Your task to perform on an android device: turn on showing notifications on the lock screen Image 0: 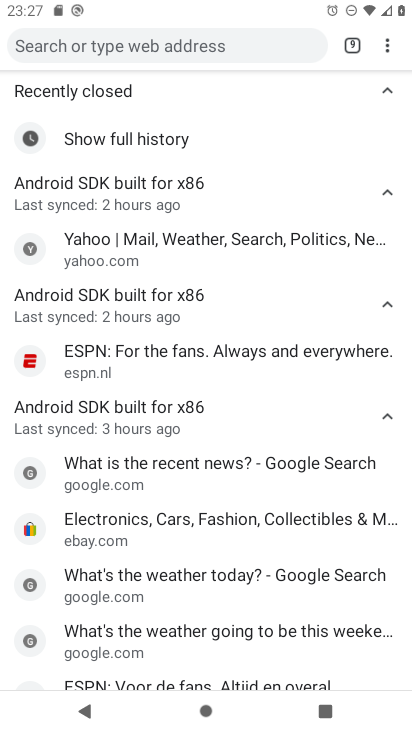
Step 0: press home button
Your task to perform on an android device: turn on showing notifications on the lock screen Image 1: 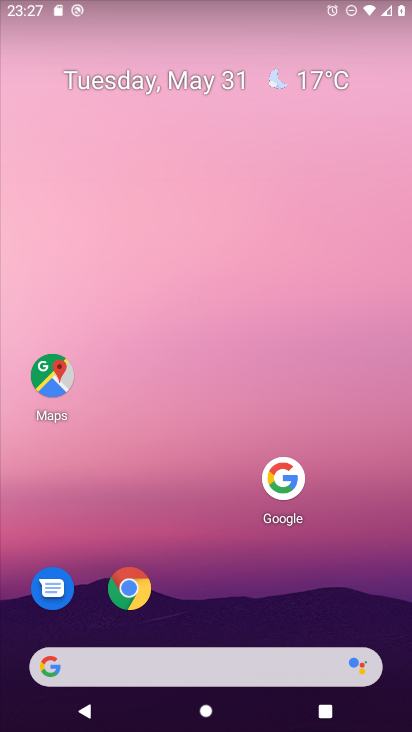
Step 1: drag from (157, 664) to (171, 118)
Your task to perform on an android device: turn on showing notifications on the lock screen Image 2: 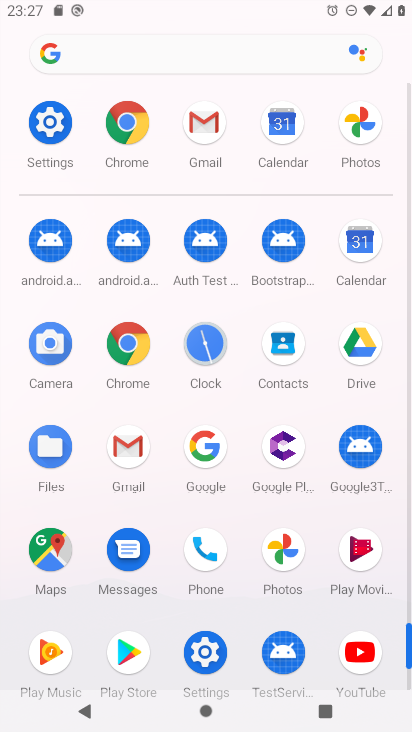
Step 2: click (46, 129)
Your task to perform on an android device: turn on showing notifications on the lock screen Image 3: 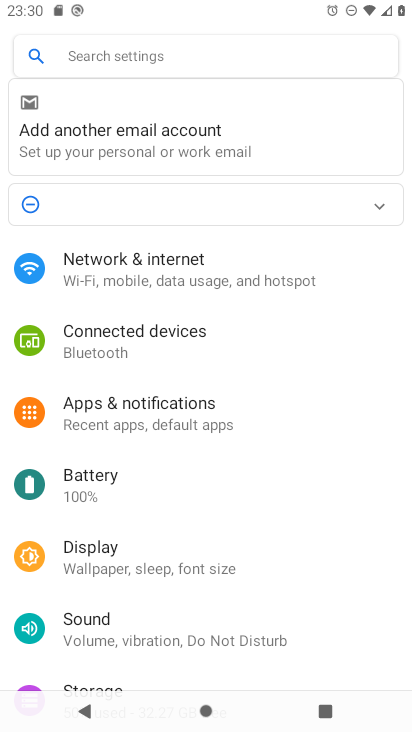
Step 3: click (156, 402)
Your task to perform on an android device: turn on showing notifications on the lock screen Image 4: 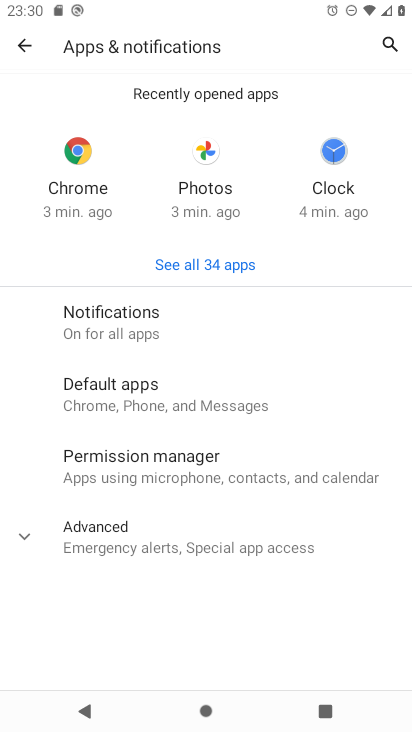
Step 4: click (141, 328)
Your task to perform on an android device: turn on showing notifications on the lock screen Image 5: 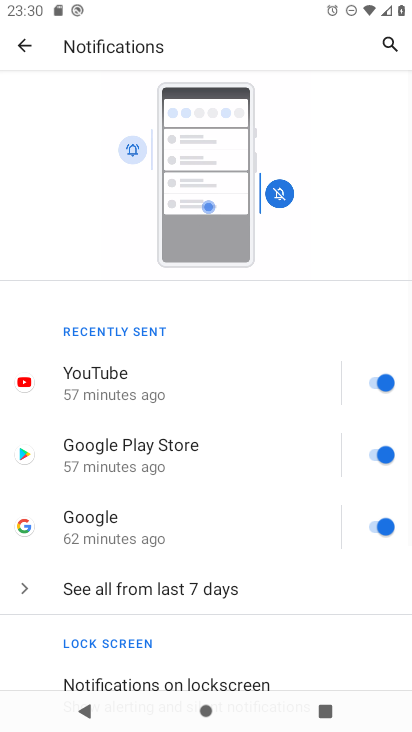
Step 5: drag from (186, 593) to (204, 288)
Your task to perform on an android device: turn on showing notifications on the lock screen Image 6: 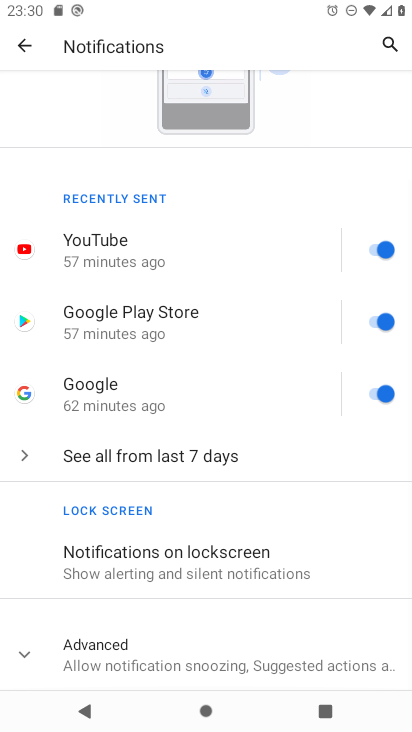
Step 6: click (129, 548)
Your task to perform on an android device: turn on showing notifications on the lock screen Image 7: 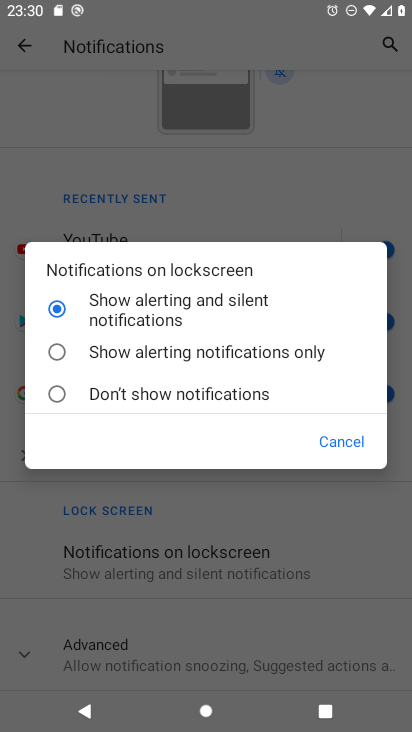
Step 7: task complete